Your task to perform on an android device: Clear the shopping cart on ebay. Add razer deathadder to the cart on ebay, then select checkout. Image 0: 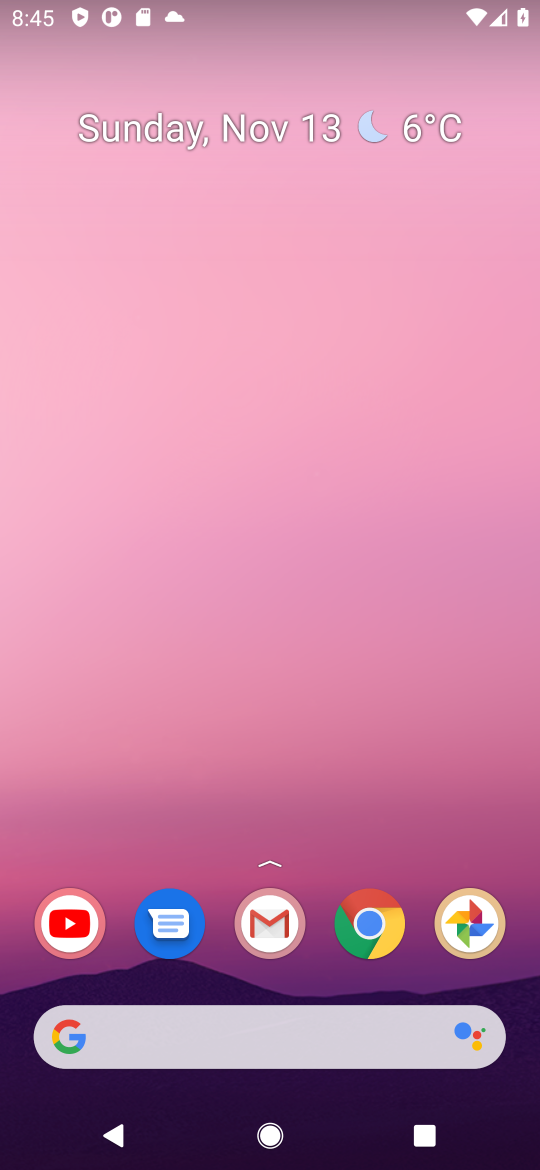
Step 0: click (390, 925)
Your task to perform on an android device: Clear the shopping cart on ebay. Add razer deathadder to the cart on ebay, then select checkout. Image 1: 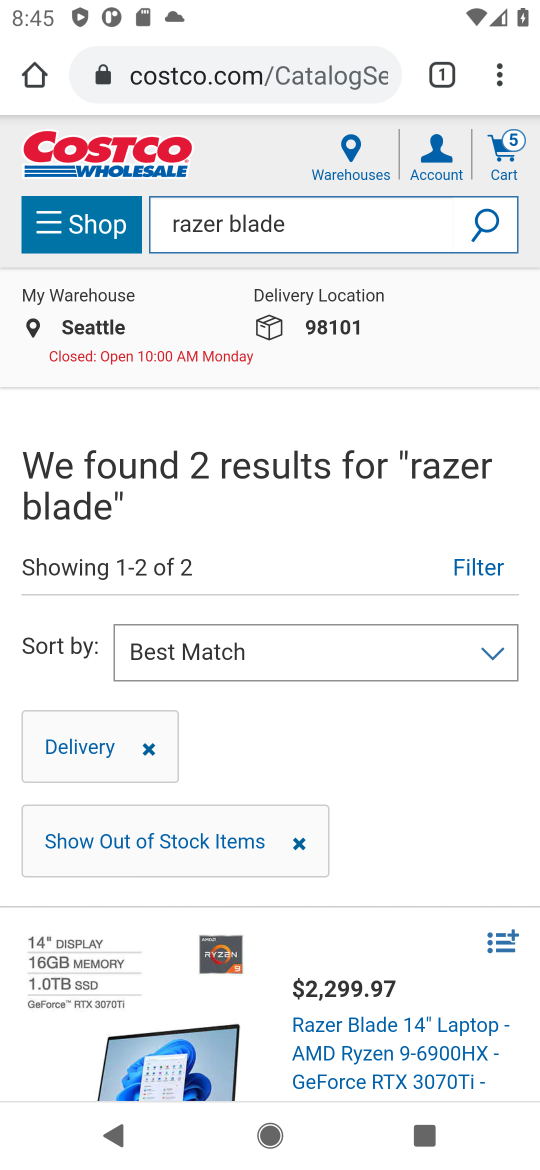
Step 1: click (164, 86)
Your task to perform on an android device: Clear the shopping cart on ebay. Add razer deathadder to the cart on ebay, then select checkout. Image 2: 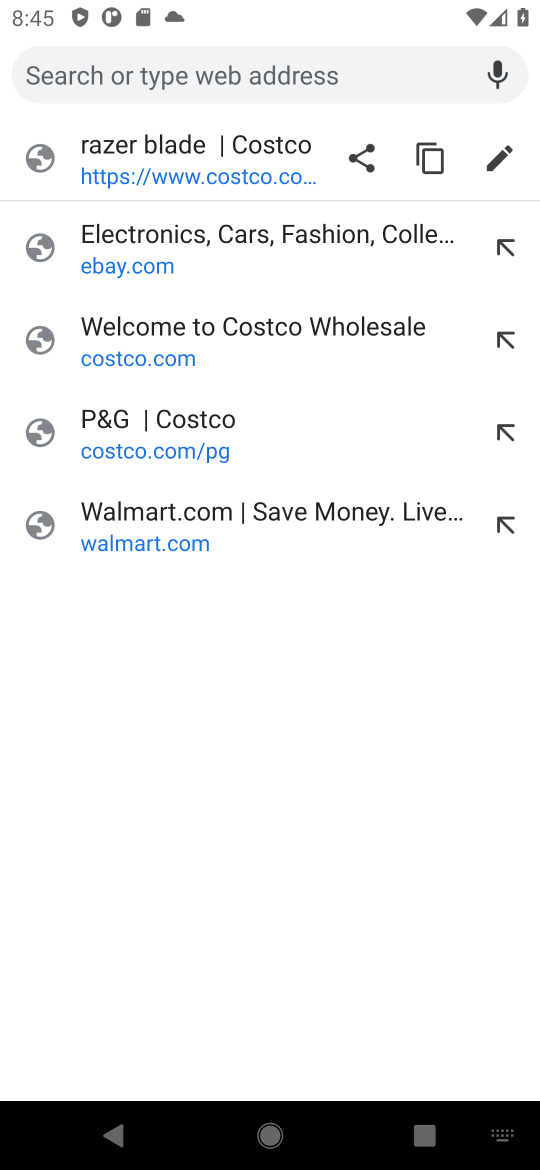
Step 2: type "ebay"
Your task to perform on an android device: Clear the shopping cart on ebay. Add razer deathadder to the cart on ebay, then select checkout. Image 3: 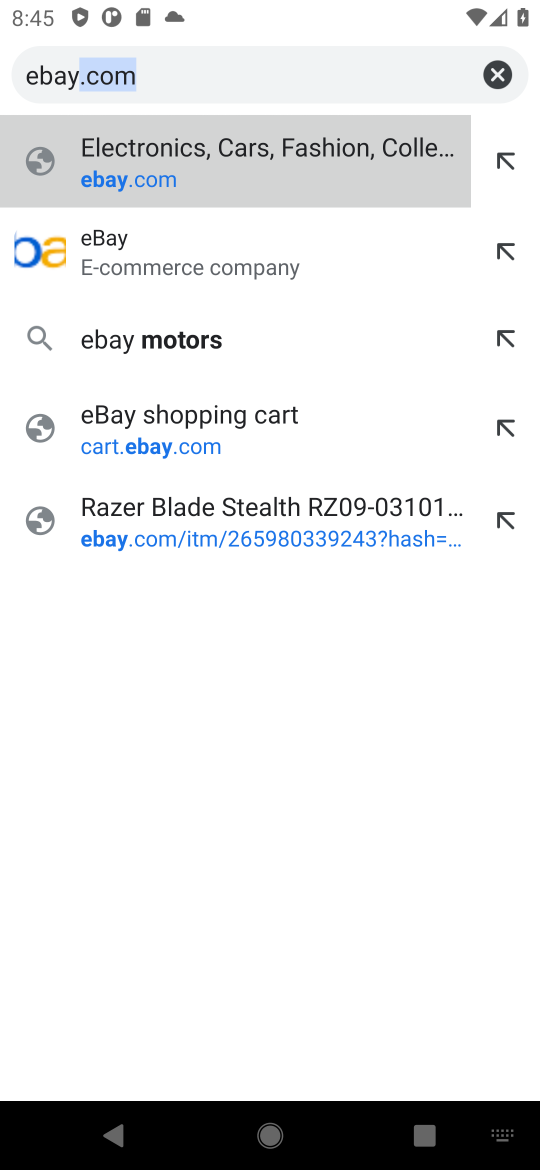
Step 3: click (223, 180)
Your task to perform on an android device: Clear the shopping cart on ebay. Add razer deathadder to the cart on ebay, then select checkout. Image 4: 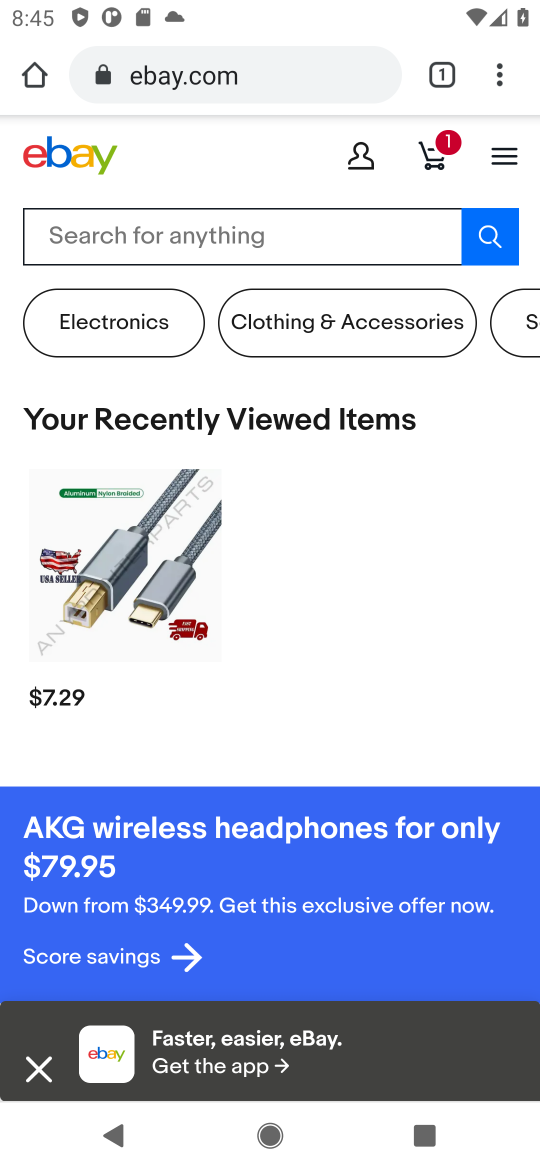
Step 4: click (178, 224)
Your task to perform on an android device: Clear the shopping cart on ebay. Add razer deathadder to the cart on ebay, then select checkout. Image 5: 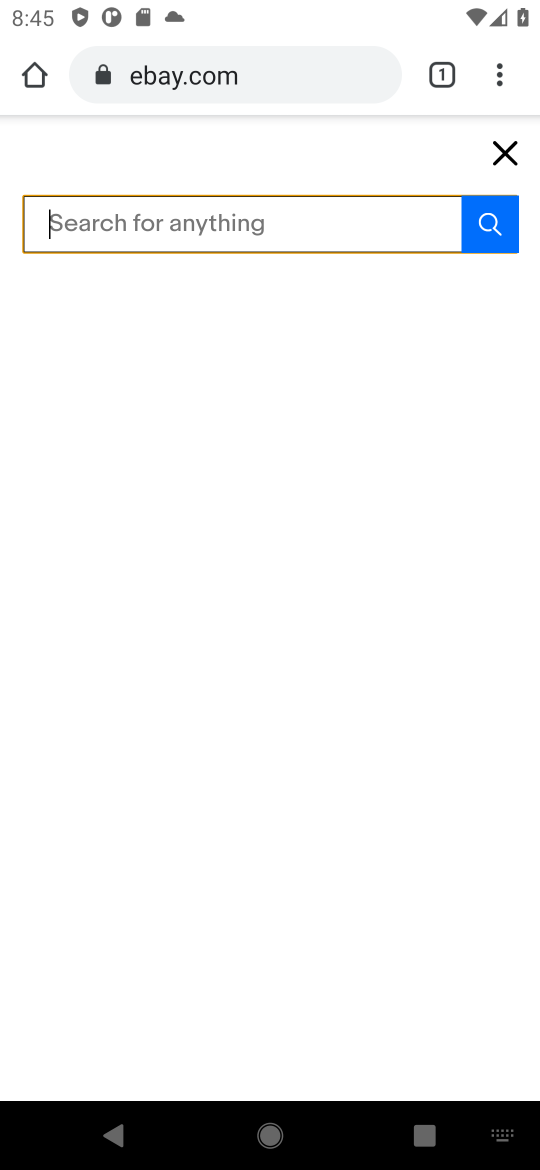
Step 5: type "razer deathadder"
Your task to perform on an android device: Clear the shopping cart on ebay. Add razer deathadder to the cart on ebay, then select checkout. Image 6: 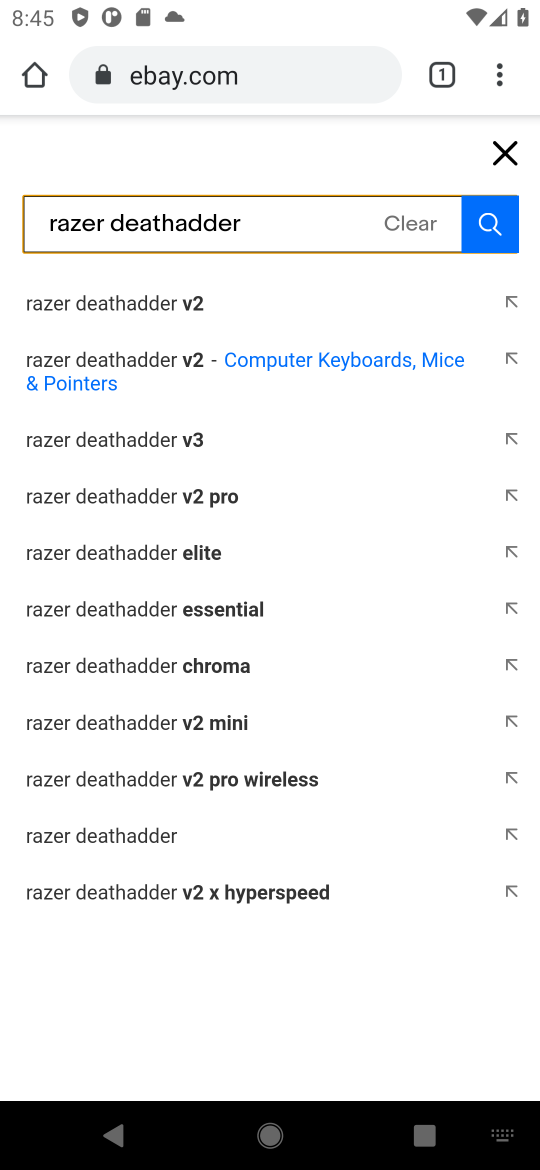
Step 6: press enter
Your task to perform on an android device: Clear the shopping cart on ebay. Add razer deathadder to the cart on ebay, then select checkout. Image 7: 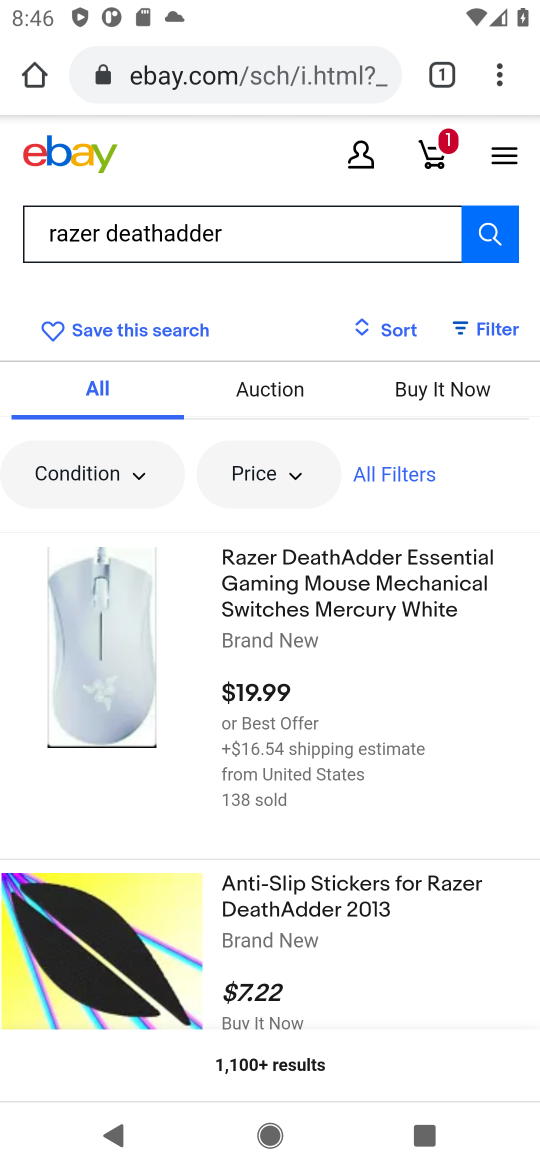
Step 7: click (137, 661)
Your task to perform on an android device: Clear the shopping cart on ebay. Add razer deathadder to the cart on ebay, then select checkout. Image 8: 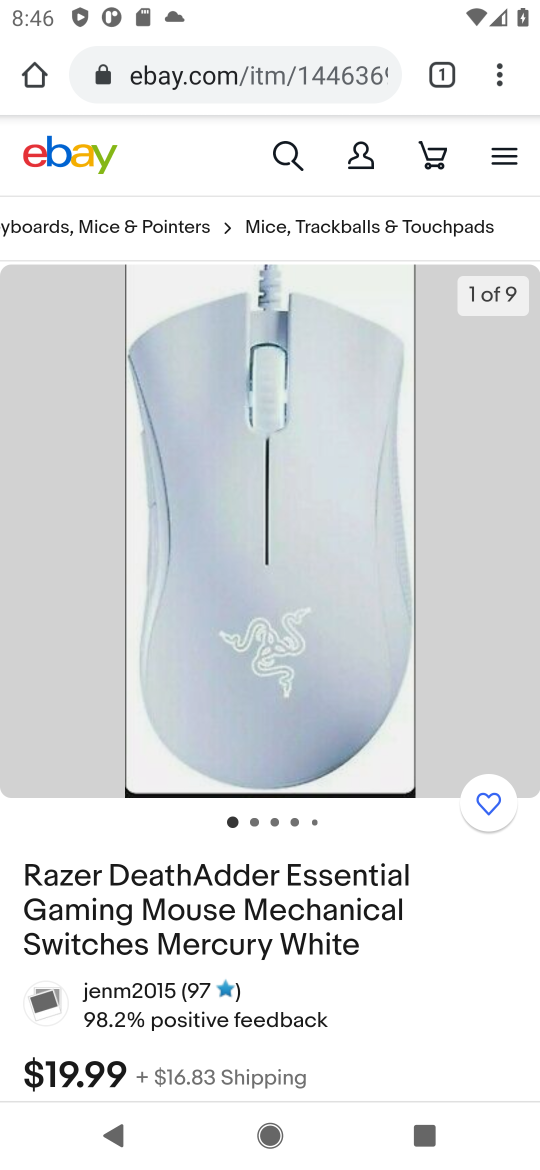
Step 8: drag from (243, 917) to (500, 282)
Your task to perform on an android device: Clear the shopping cart on ebay. Add razer deathadder to the cart on ebay, then select checkout. Image 9: 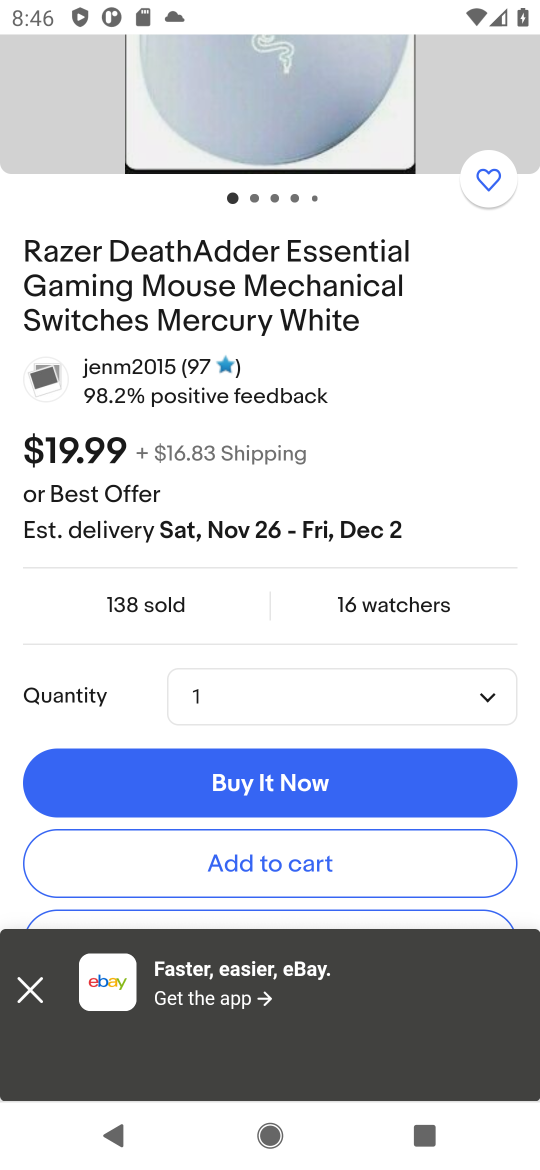
Step 9: drag from (249, 779) to (495, 524)
Your task to perform on an android device: Clear the shopping cart on ebay. Add razer deathadder to the cart on ebay, then select checkout. Image 10: 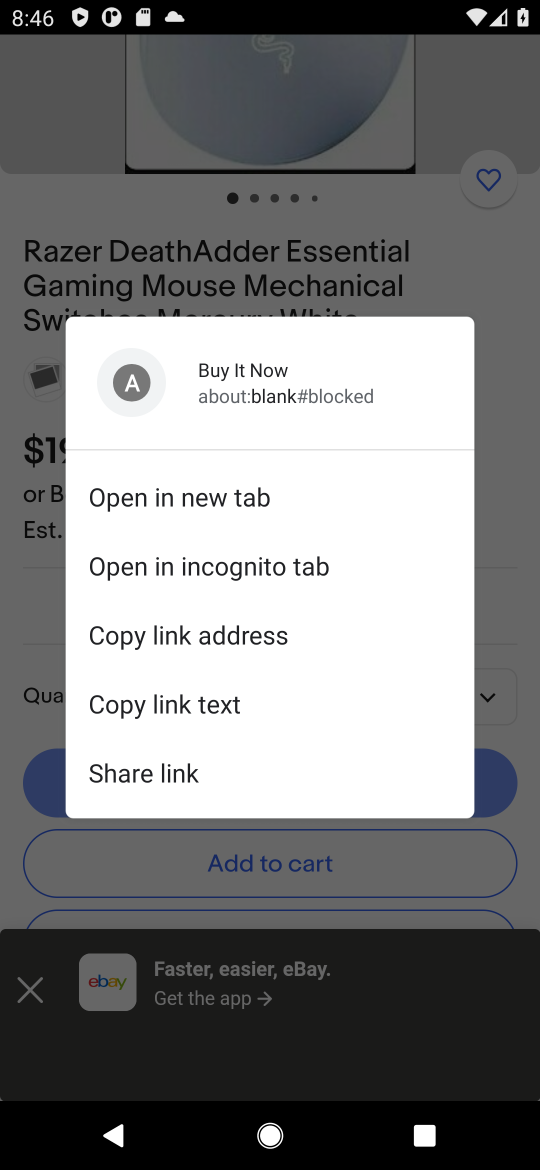
Step 10: click (526, 534)
Your task to perform on an android device: Clear the shopping cart on ebay. Add razer deathadder to the cart on ebay, then select checkout. Image 11: 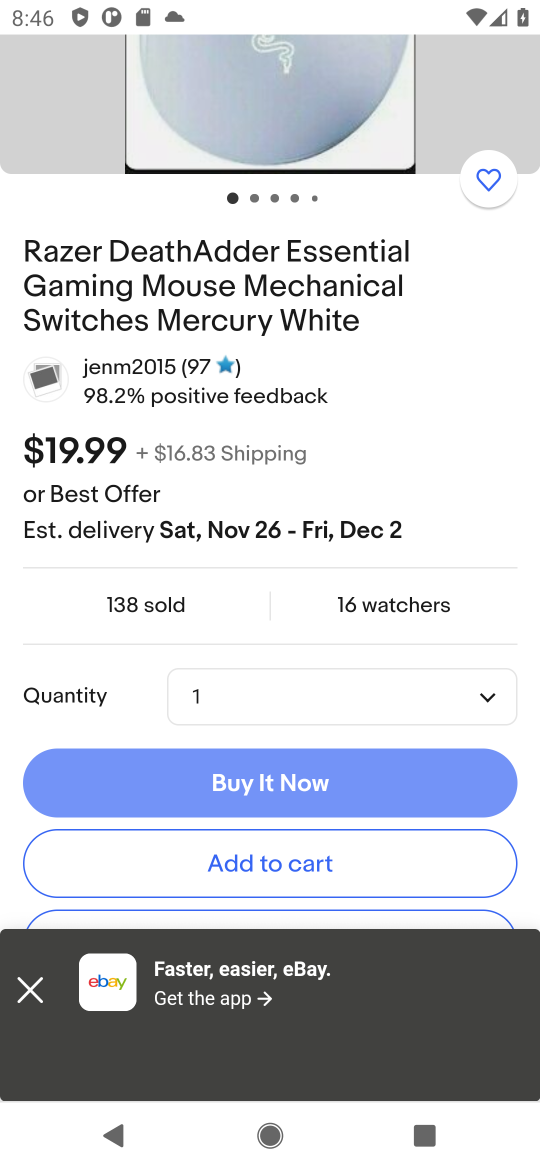
Step 11: click (315, 870)
Your task to perform on an android device: Clear the shopping cart on ebay. Add razer deathadder to the cart on ebay, then select checkout. Image 12: 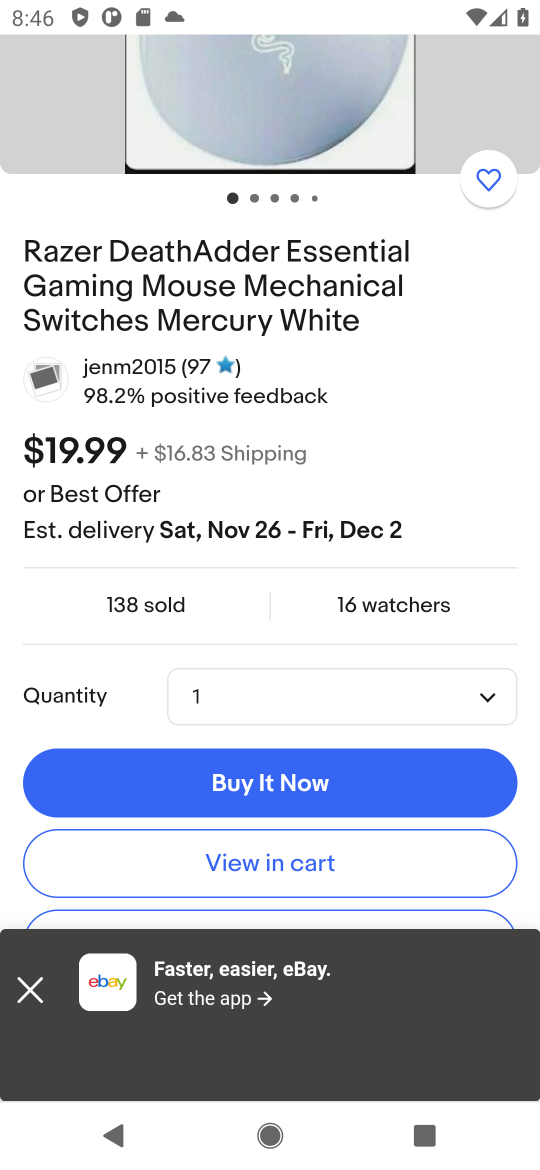
Step 12: click (310, 872)
Your task to perform on an android device: Clear the shopping cart on ebay. Add razer deathadder to the cart on ebay, then select checkout. Image 13: 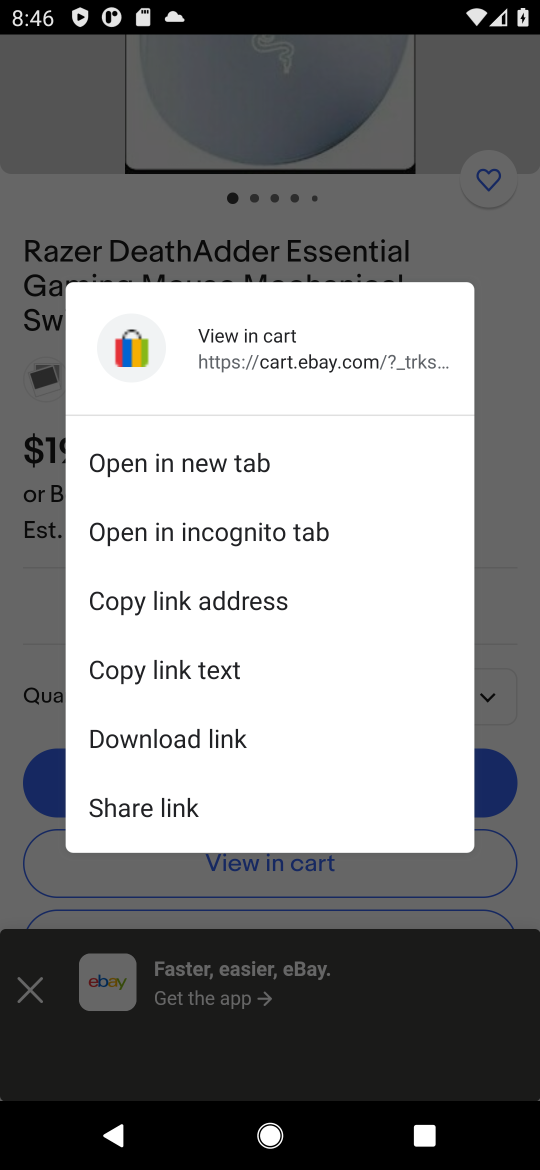
Step 13: click (310, 872)
Your task to perform on an android device: Clear the shopping cart on ebay. Add razer deathadder to the cart on ebay, then select checkout. Image 14: 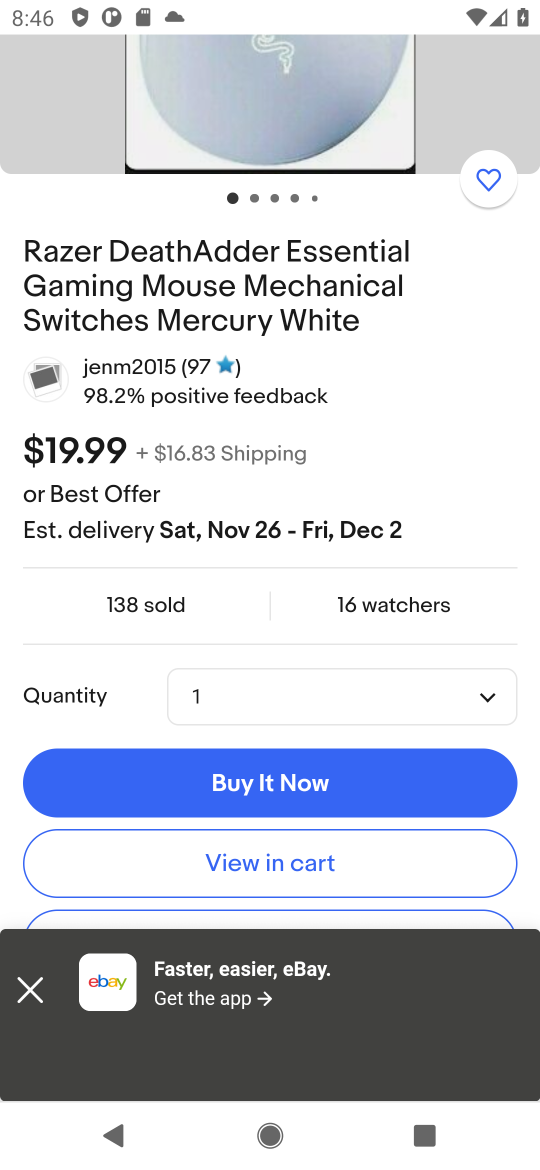
Step 14: click (268, 877)
Your task to perform on an android device: Clear the shopping cart on ebay. Add razer deathadder to the cart on ebay, then select checkout. Image 15: 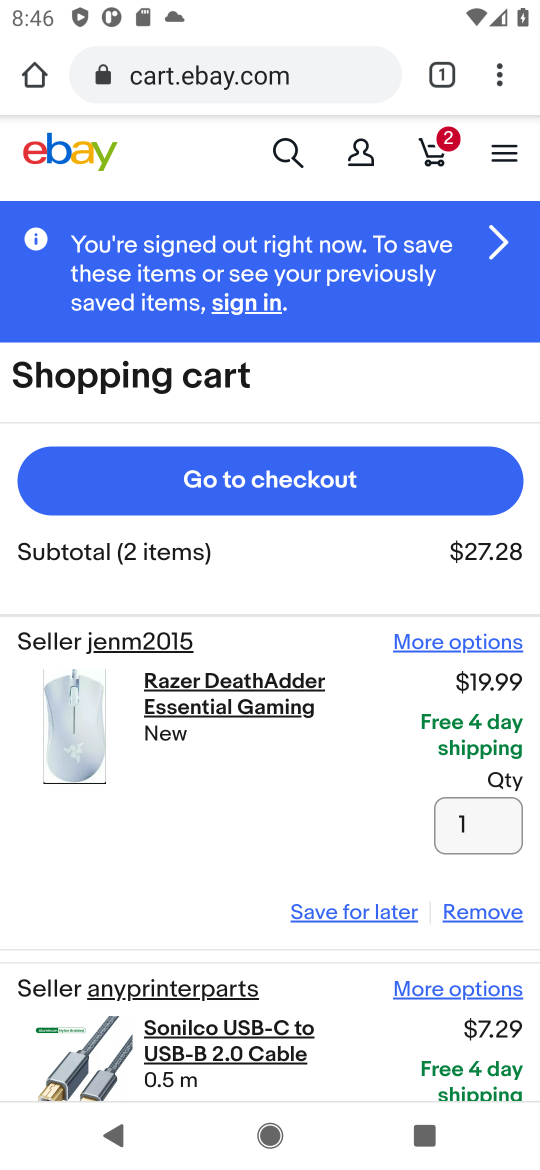
Step 15: click (270, 484)
Your task to perform on an android device: Clear the shopping cart on ebay. Add razer deathadder to the cart on ebay, then select checkout. Image 16: 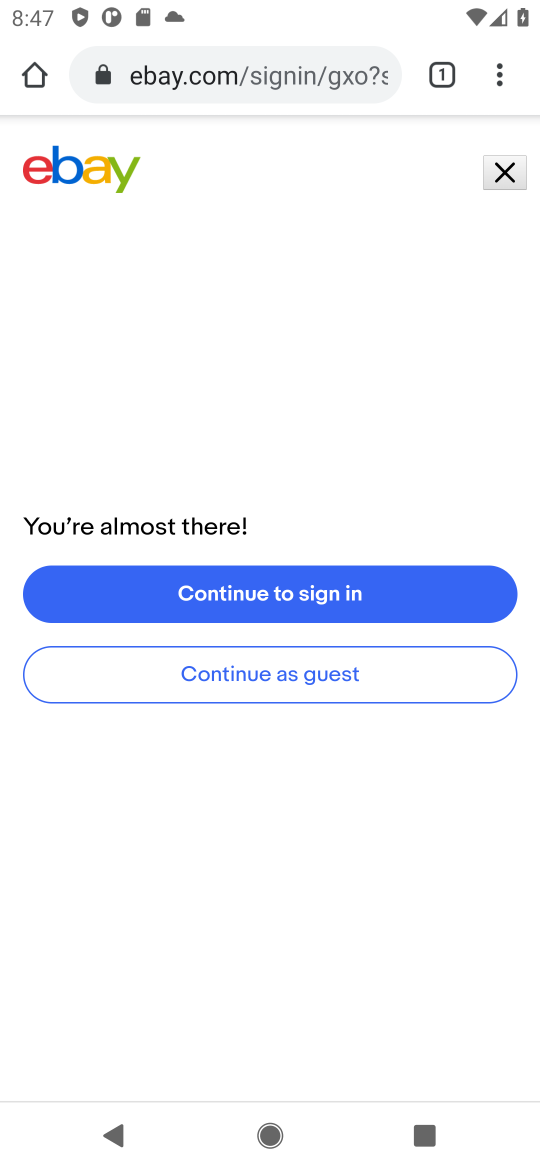
Step 16: click (369, 603)
Your task to perform on an android device: Clear the shopping cart on ebay. Add razer deathadder to the cart on ebay, then select checkout. Image 17: 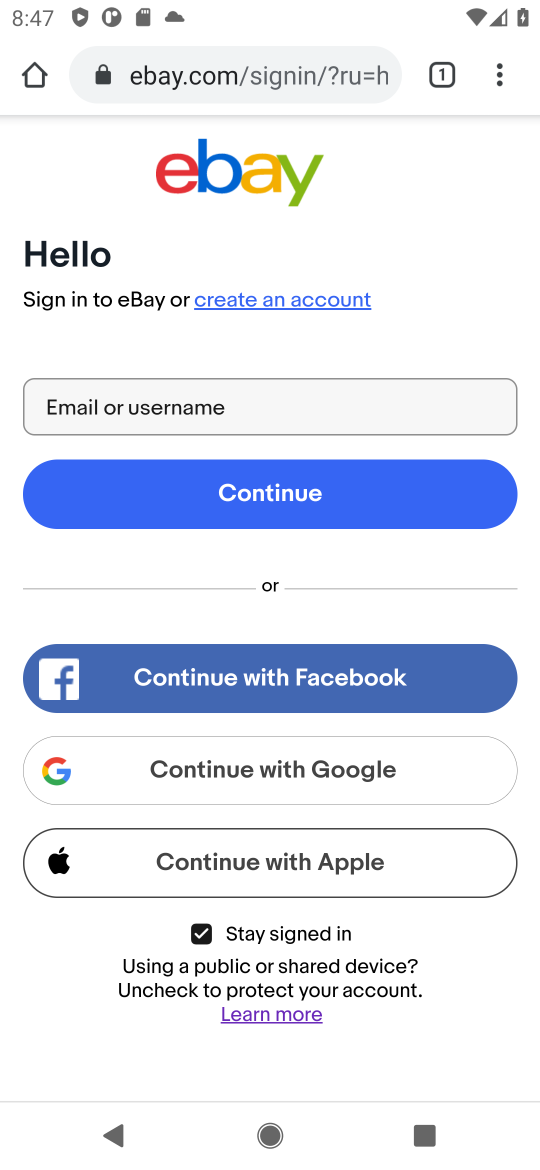
Step 17: task complete